Your task to perform on an android device: Clear the cart on amazon. Add razer deathadder to the cart on amazon, then select checkout. Image 0: 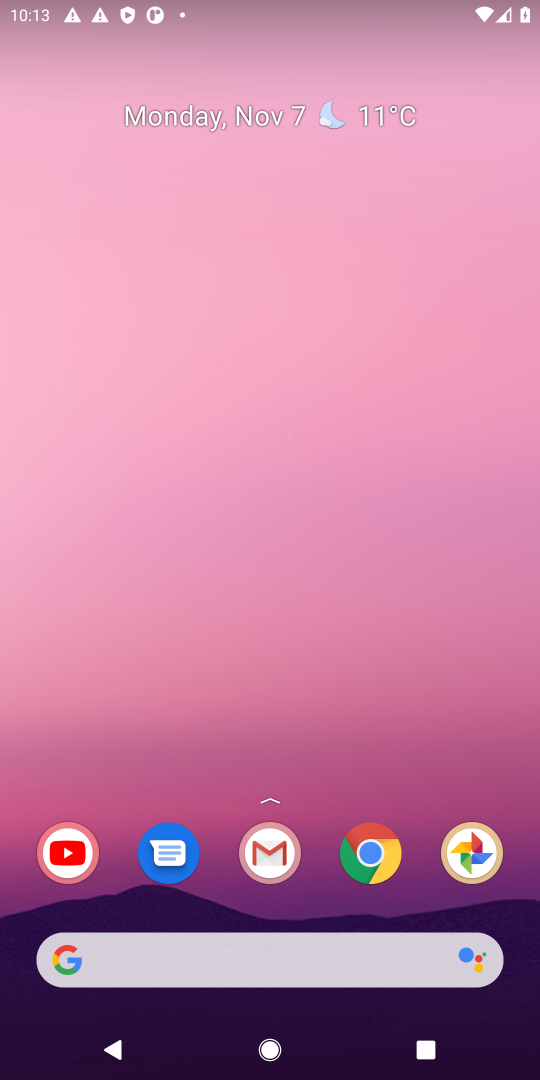
Step 0: click (185, 979)
Your task to perform on an android device: Clear the cart on amazon. Add razer deathadder to the cart on amazon, then select checkout. Image 1: 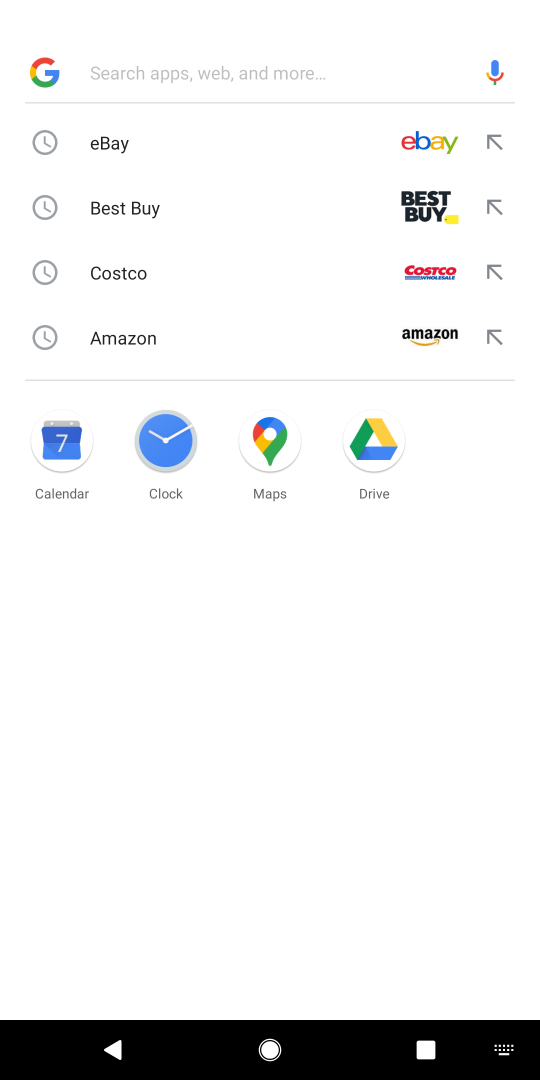
Step 1: type "target"
Your task to perform on an android device: Clear the cart on amazon. Add razer deathadder to the cart on amazon, then select checkout. Image 2: 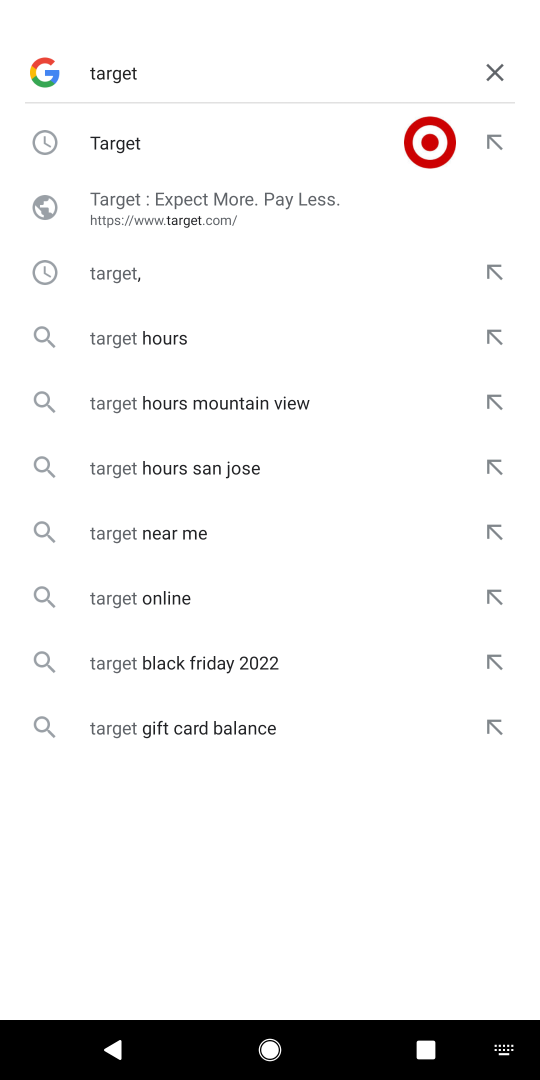
Step 2: click (158, 133)
Your task to perform on an android device: Clear the cart on amazon. Add razer deathadder to the cart on amazon, then select checkout. Image 3: 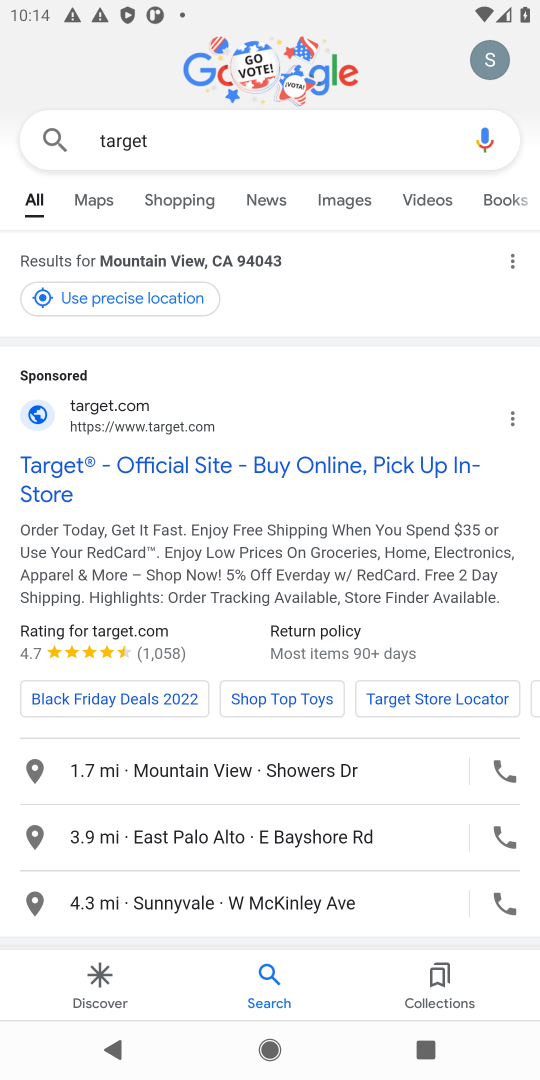
Step 3: click (131, 492)
Your task to perform on an android device: Clear the cart on amazon. Add razer deathadder to the cart on amazon, then select checkout. Image 4: 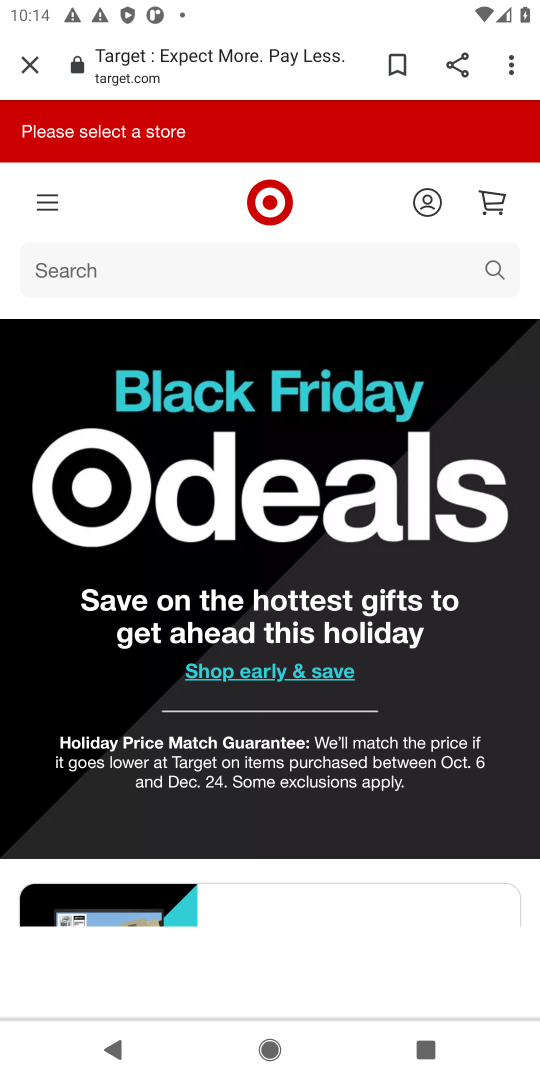
Step 4: task complete